Your task to perform on an android device: turn on showing notifications on the lock screen Image 0: 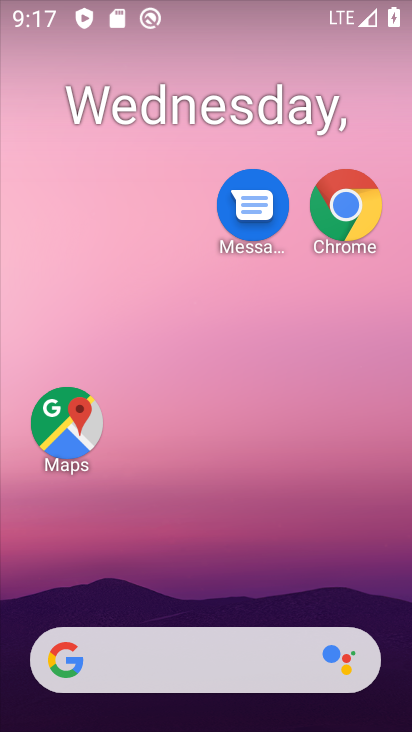
Step 0: drag from (239, 410) to (297, 209)
Your task to perform on an android device: turn on showing notifications on the lock screen Image 1: 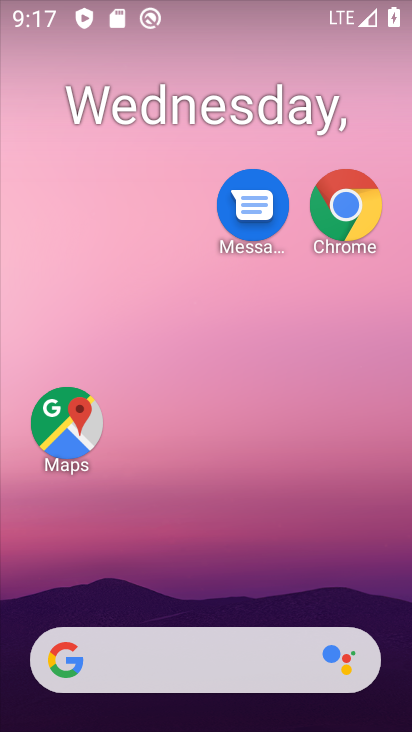
Step 1: drag from (216, 495) to (231, 28)
Your task to perform on an android device: turn on showing notifications on the lock screen Image 2: 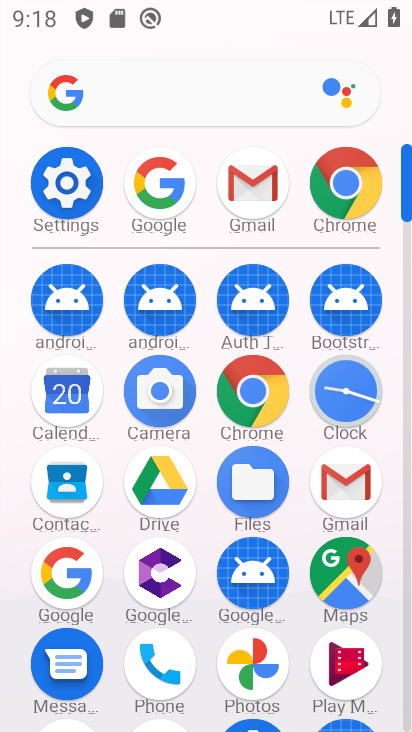
Step 2: click (64, 180)
Your task to perform on an android device: turn on showing notifications on the lock screen Image 3: 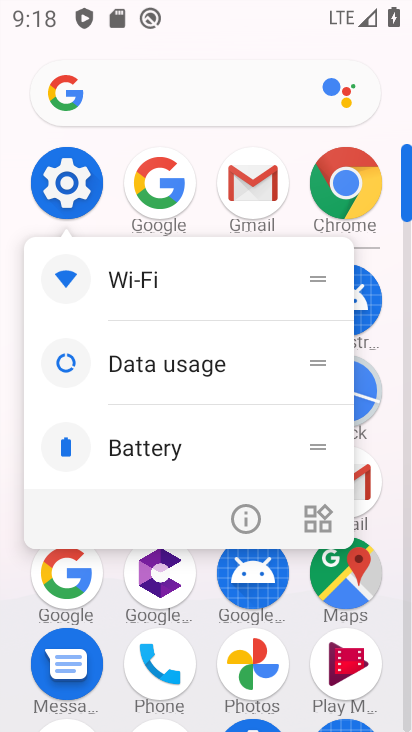
Step 3: click (250, 522)
Your task to perform on an android device: turn on showing notifications on the lock screen Image 4: 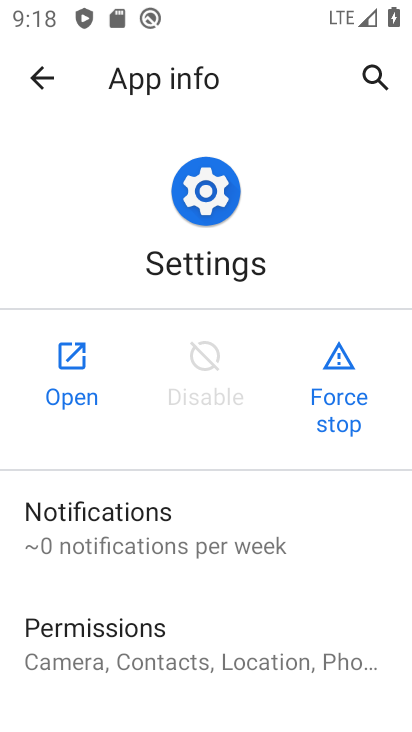
Step 4: click (83, 376)
Your task to perform on an android device: turn on showing notifications on the lock screen Image 5: 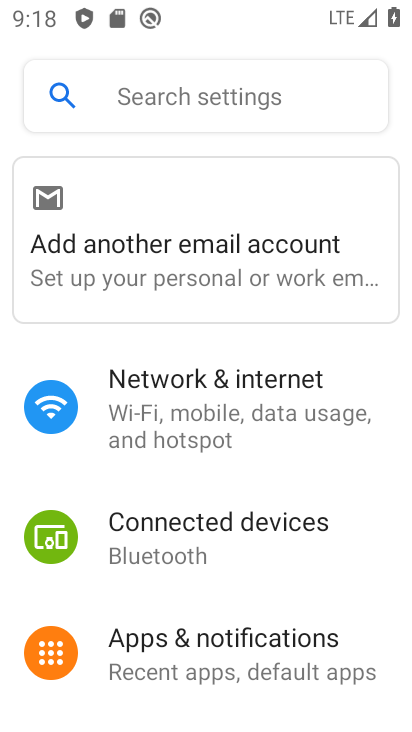
Step 5: drag from (192, 563) to (256, 176)
Your task to perform on an android device: turn on showing notifications on the lock screen Image 6: 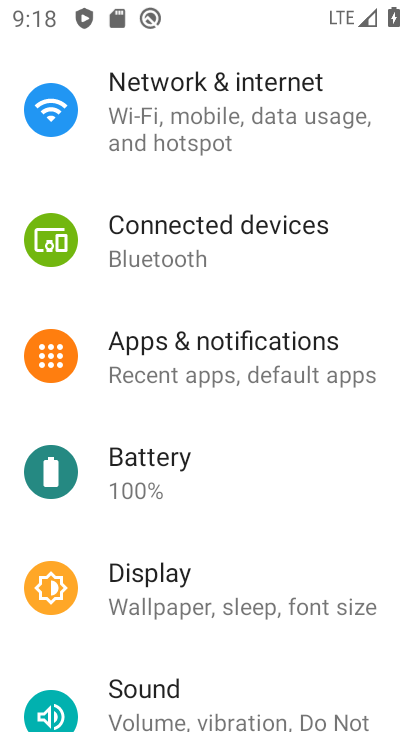
Step 6: drag from (218, 432) to (293, 186)
Your task to perform on an android device: turn on showing notifications on the lock screen Image 7: 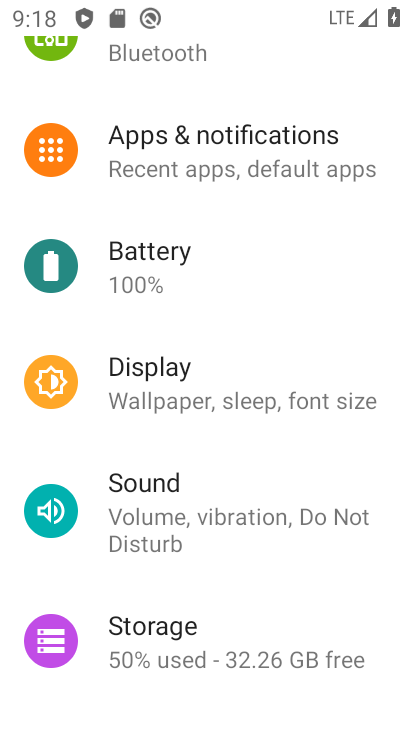
Step 7: click (215, 170)
Your task to perform on an android device: turn on showing notifications on the lock screen Image 8: 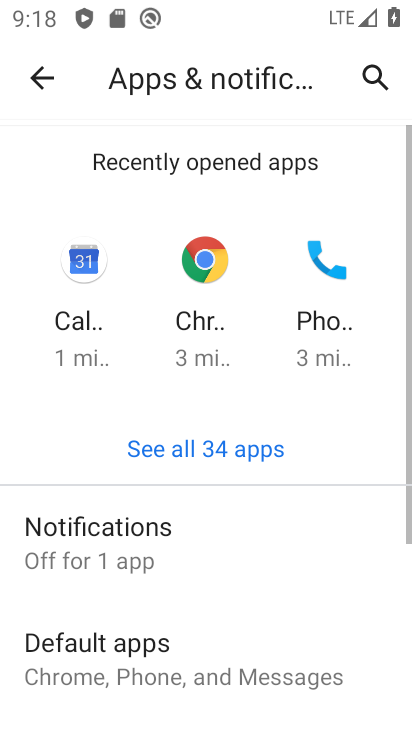
Step 8: click (186, 526)
Your task to perform on an android device: turn on showing notifications on the lock screen Image 9: 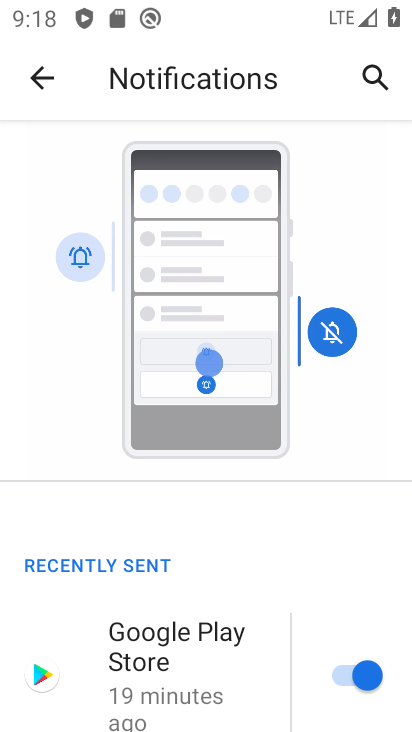
Step 9: drag from (213, 662) to (351, 0)
Your task to perform on an android device: turn on showing notifications on the lock screen Image 10: 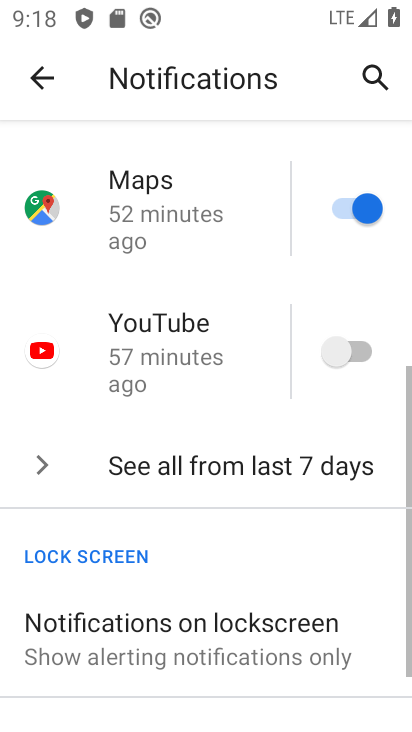
Step 10: drag from (195, 623) to (267, 254)
Your task to perform on an android device: turn on showing notifications on the lock screen Image 11: 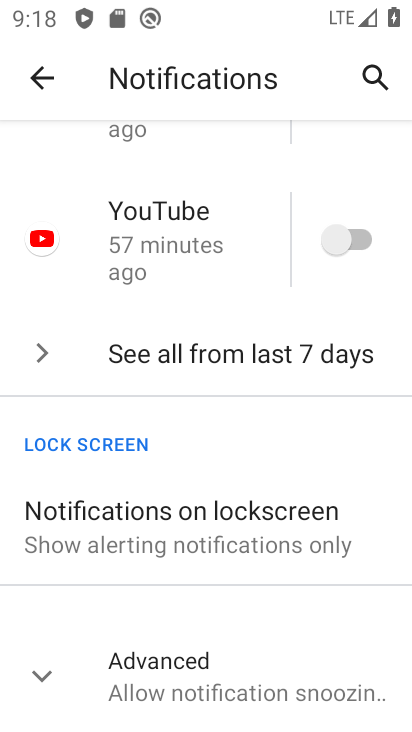
Step 11: click (216, 534)
Your task to perform on an android device: turn on showing notifications on the lock screen Image 12: 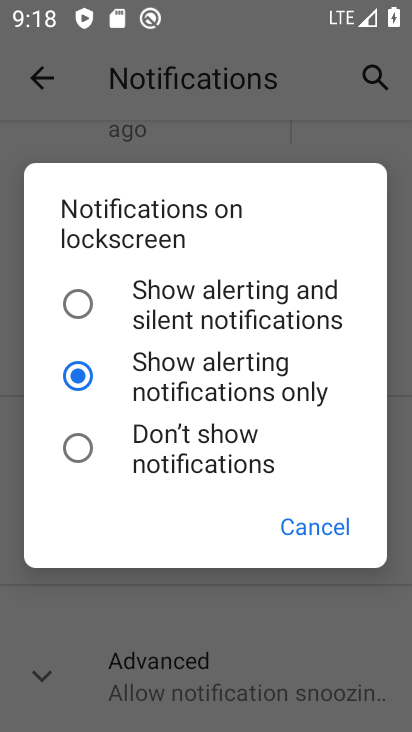
Step 12: task complete